Your task to perform on an android device: turn off priority inbox in the gmail app Image 0: 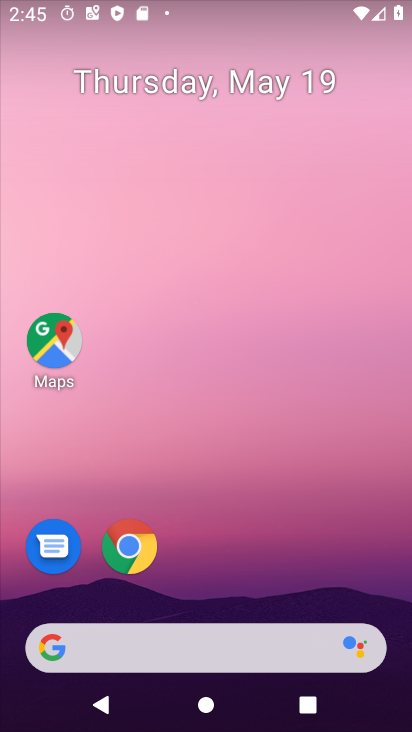
Step 0: drag from (144, 608) to (249, 57)
Your task to perform on an android device: turn off priority inbox in the gmail app Image 1: 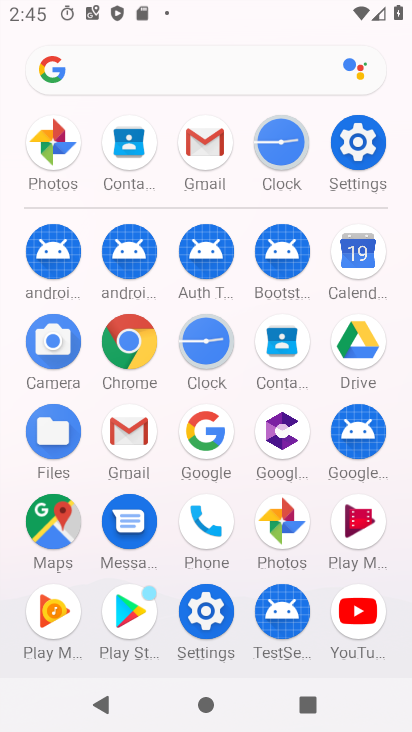
Step 1: click (123, 439)
Your task to perform on an android device: turn off priority inbox in the gmail app Image 2: 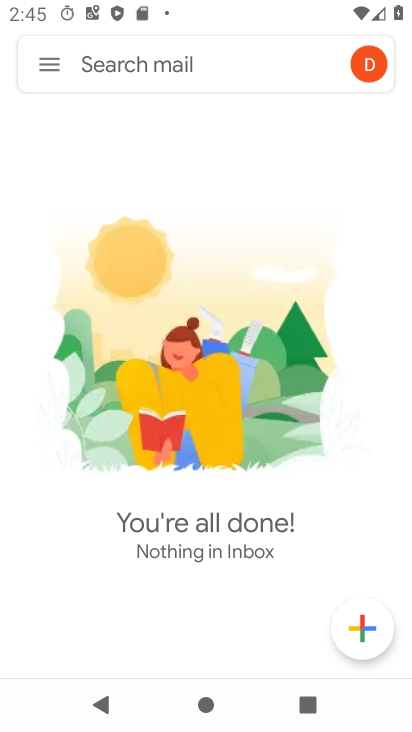
Step 2: click (54, 76)
Your task to perform on an android device: turn off priority inbox in the gmail app Image 3: 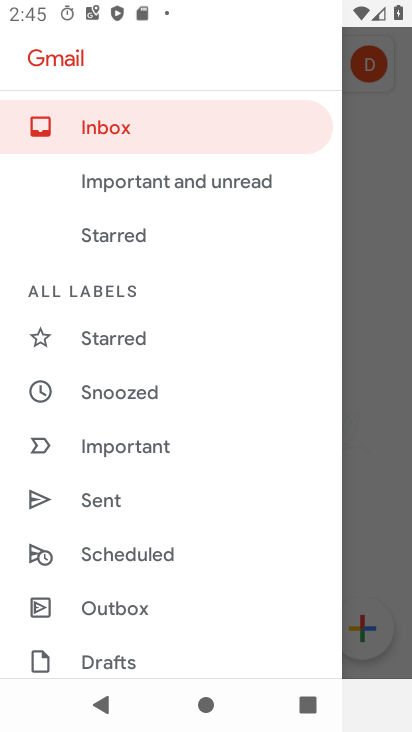
Step 3: drag from (107, 521) to (141, 153)
Your task to perform on an android device: turn off priority inbox in the gmail app Image 4: 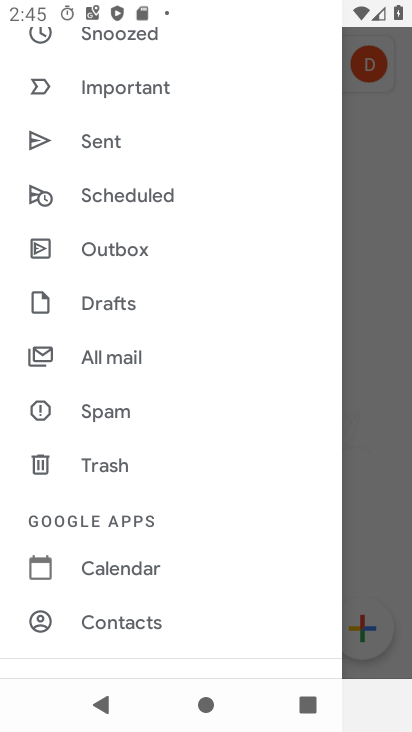
Step 4: drag from (61, 614) to (141, 190)
Your task to perform on an android device: turn off priority inbox in the gmail app Image 5: 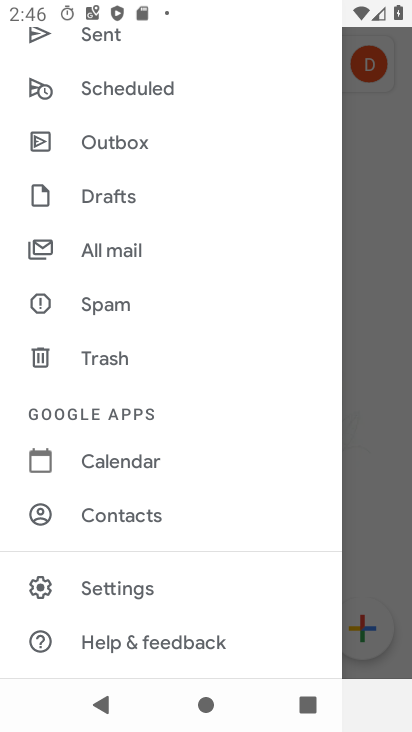
Step 5: click (113, 598)
Your task to perform on an android device: turn off priority inbox in the gmail app Image 6: 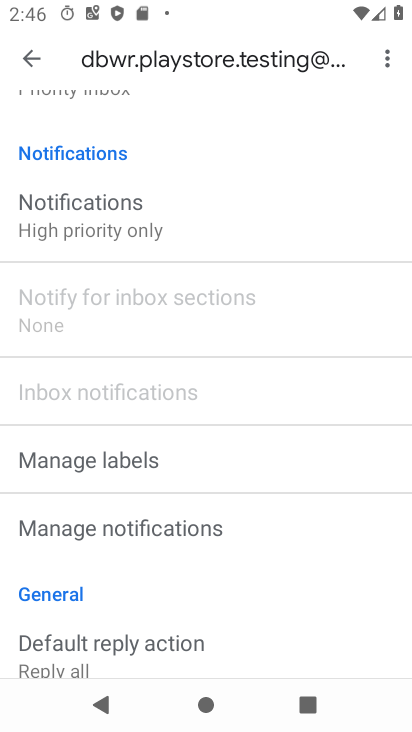
Step 6: drag from (159, 126) to (185, 673)
Your task to perform on an android device: turn off priority inbox in the gmail app Image 7: 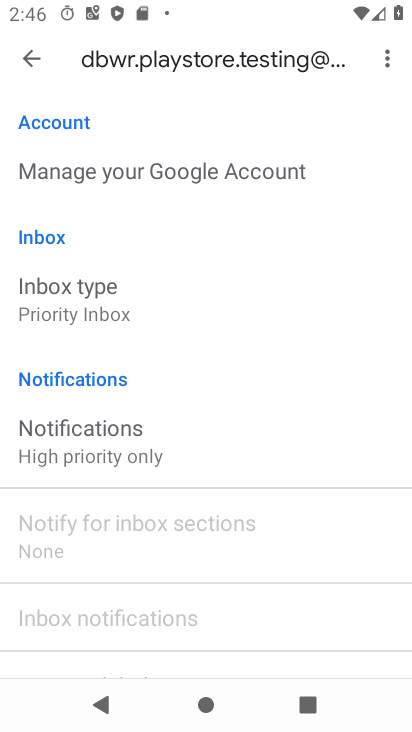
Step 7: drag from (98, 157) to (132, 548)
Your task to perform on an android device: turn off priority inbox in the gmail app Image 8: 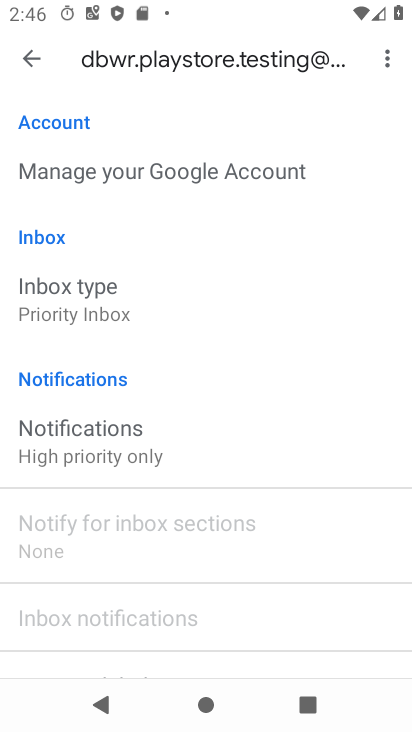
Step 8: click (114, 313)
Your task to perform on an android device: turn off priority inbox in the gmail app Image 9: 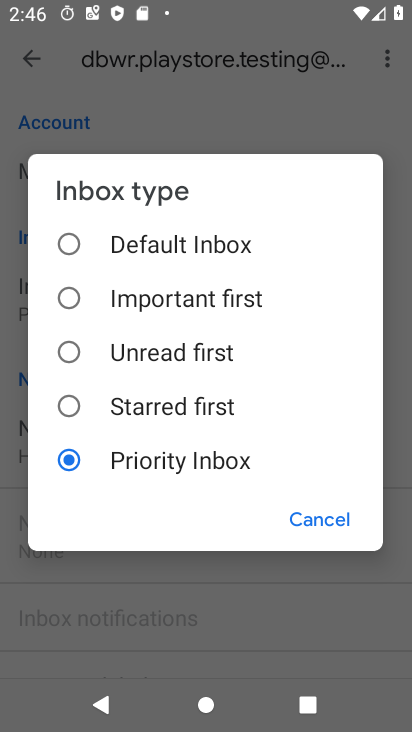
Step 9: click (139, 351)
Your task to perform on an android device: turn off priority inbox in the gmail app Image 10: 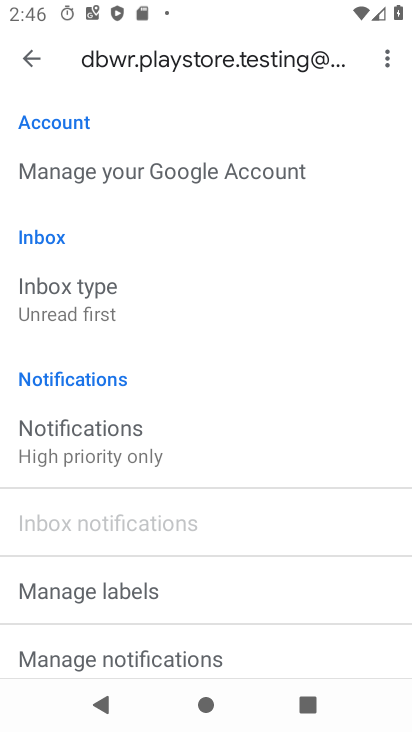
Step 10: task complete